Your task to perform on an android device: Toggle the flashlight Image 0: 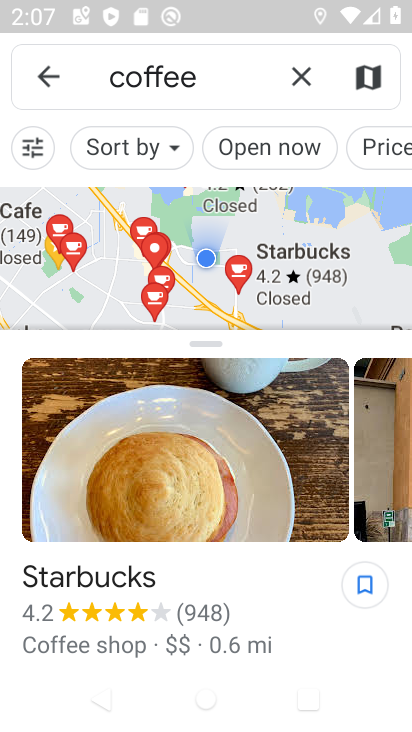
Step 0: press home button
Your task to perform on an android device: Toggle the flashlight Image 1: 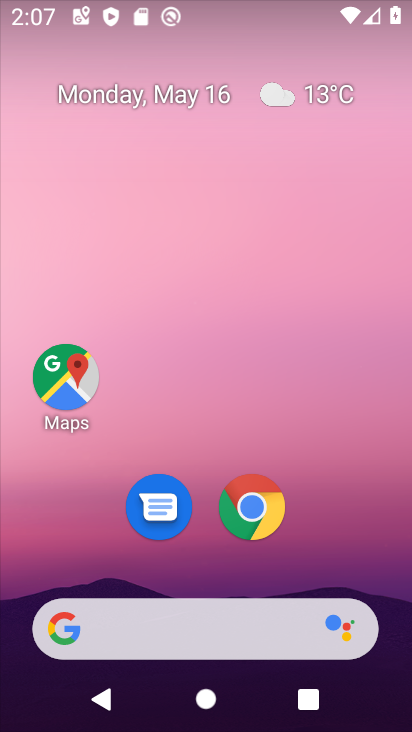
Step 1: drag from (242, 9) to (241, 370)
Your task to perform on an android device: Toggle the flashlight Image 2: 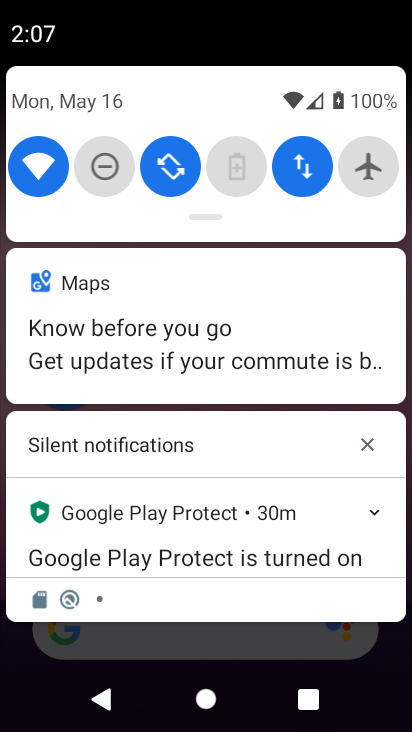
Step 2: drag from (208, 82) to (207, 394)
Your task to perform on an android device: Toggle the flashlight Image 3: 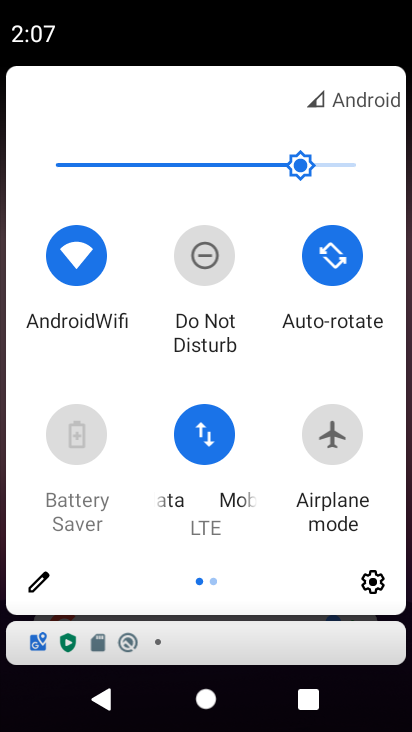
Step 3: click (40, 590)
Your task to perform on an android device: Toggle the flashlight Image 4: 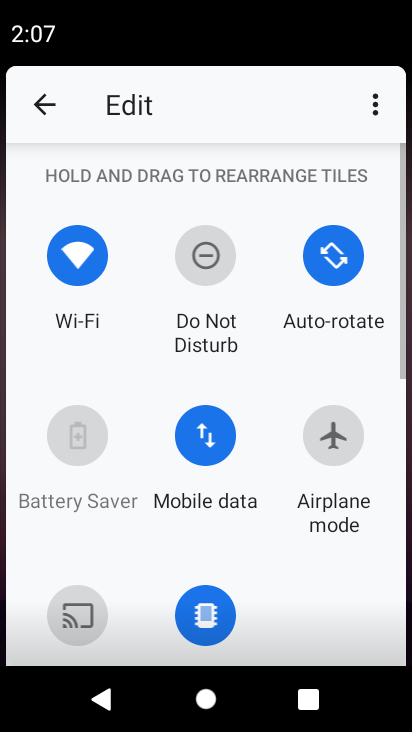
Step 4: task complete